Your task to perform on an android device: change the clock style Image 0: 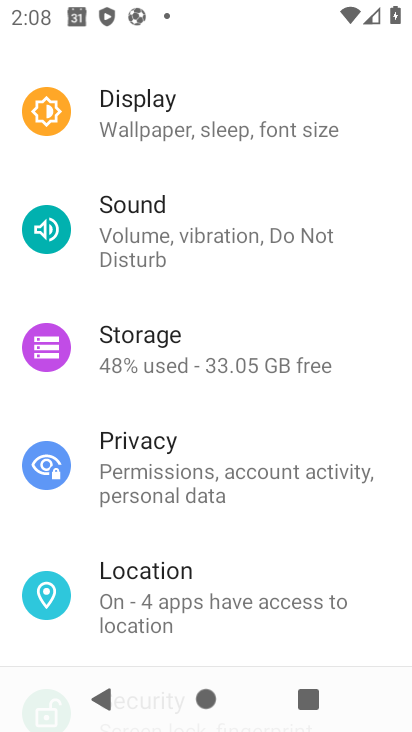
Step 0: press home button
Your task to perform on an android device: change the clock style Image 1: 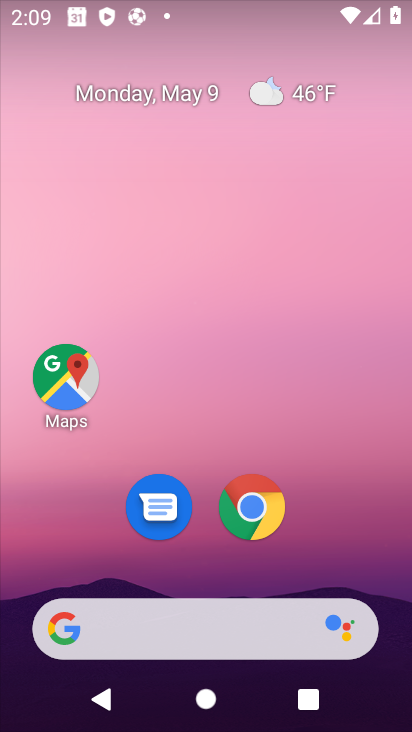
Step 1: drag from (203, 500) to (255, 64)
Your task to perform on an android device: change the clock style Image 2: 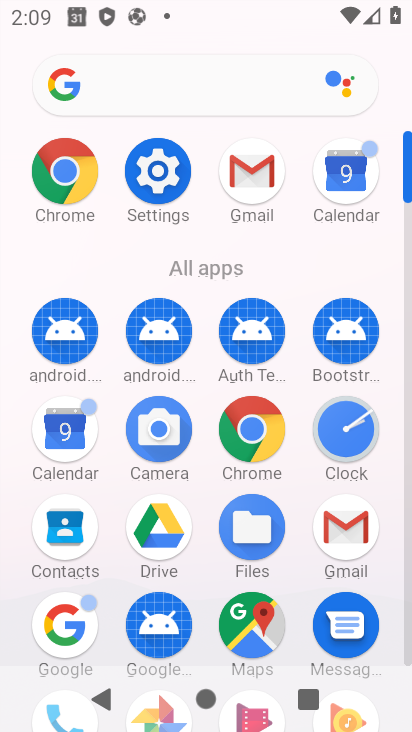
Step 2: click (350, 443)
Your task to perform on an android device: change the clock style Image 3: 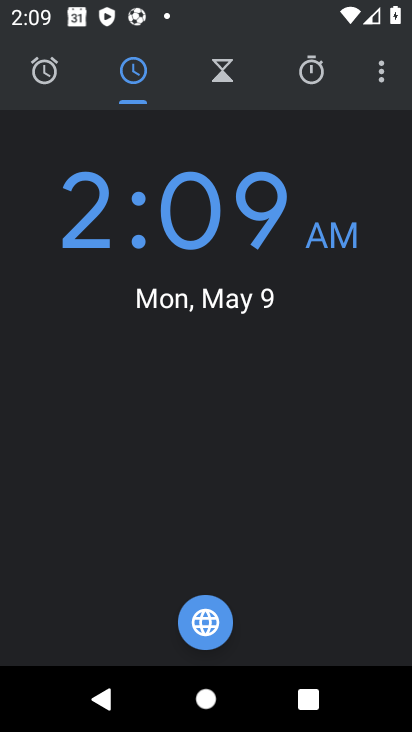
Step 3: click (388, 70)
Your task to perform on an android device: change the clock style Image 4: 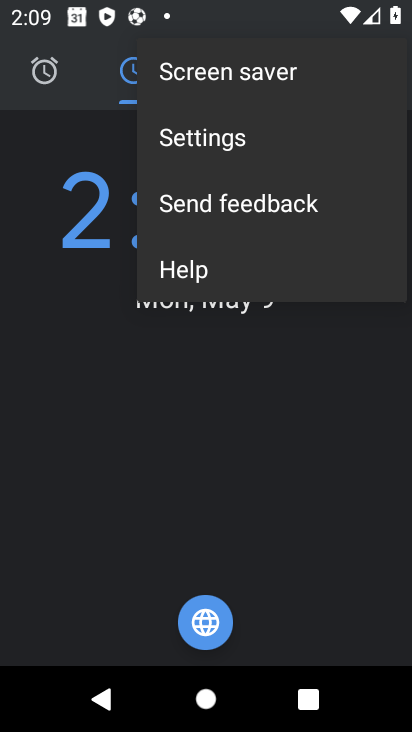
Step 4: click (249, 141)
Your task to perform on an android device: change the clock style Image 5: 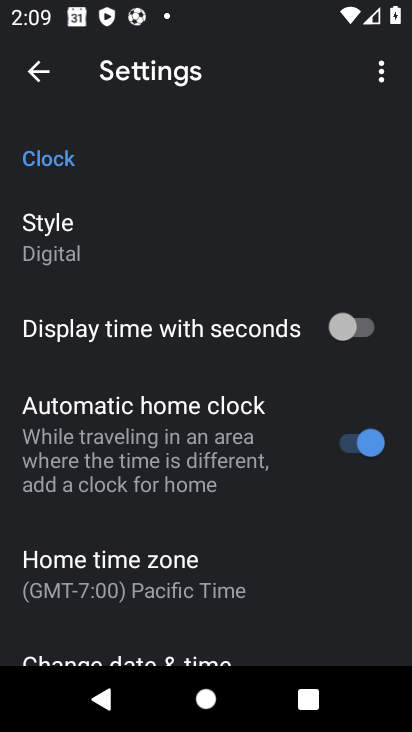
Step 5: click (69, 256)
Your task to perform on an android device: change the clock style Image 6: 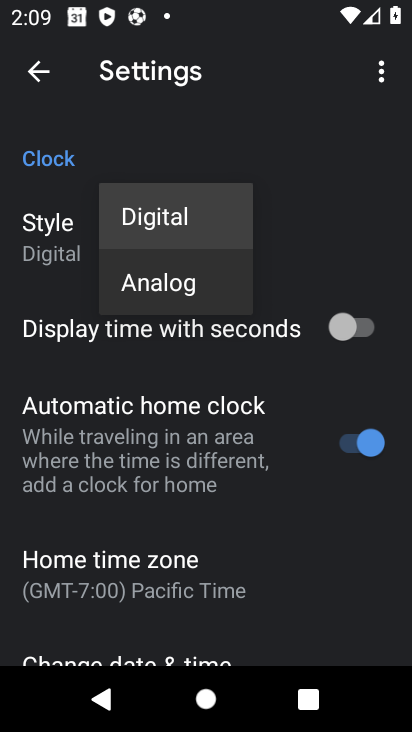
Step 6: click (162, 280)
Your task to perform on an android device: change the clock style Image 7: 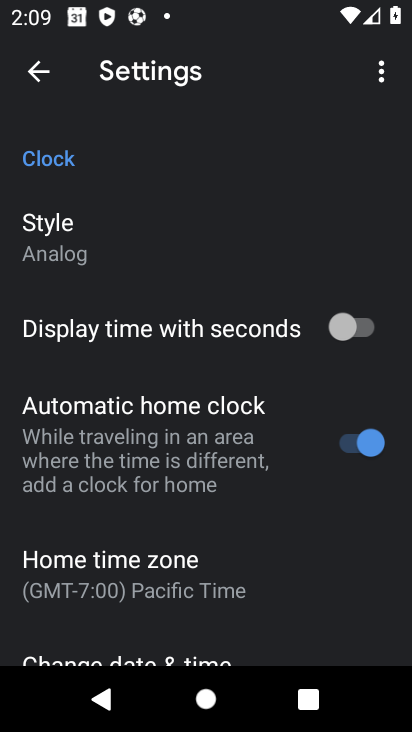
Step 7: task complete